Your task to perform on an android device: Do I have any events tomorrow? Image 0: 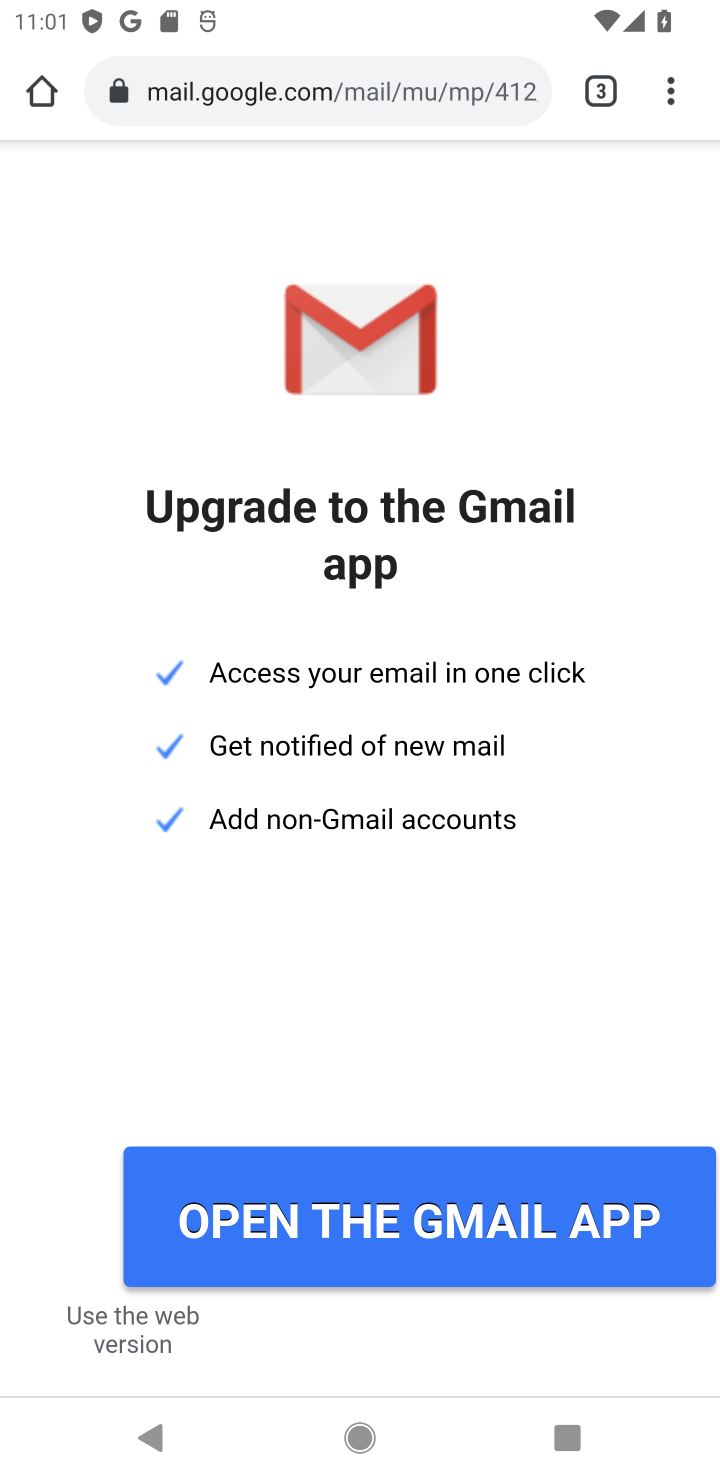
Step 0: click (284, 1415)
Your task to perform on an android device: Do I have any events tomorrow? Image 1: 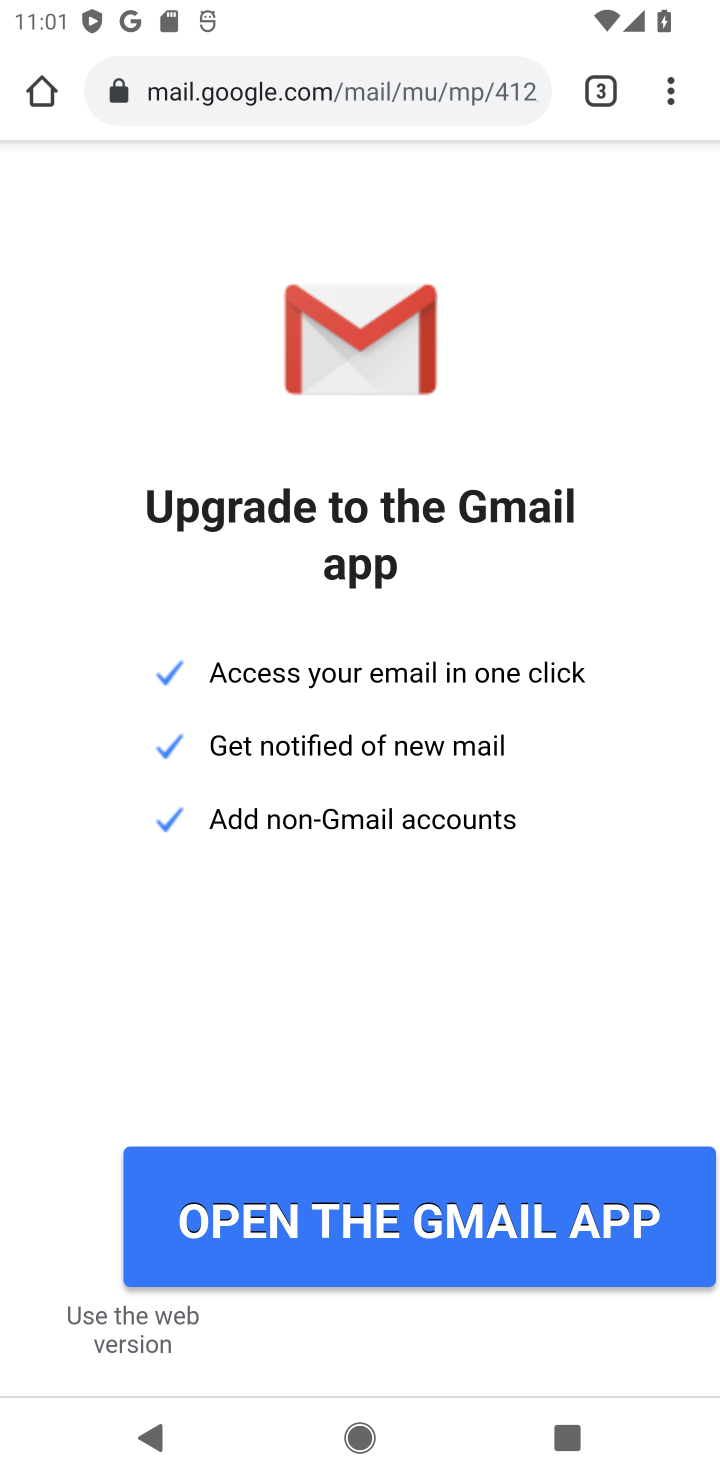
Step 1: click (358, 1439)
Your task to perform on an android device: Do I have any events tomorrow? Image 2: 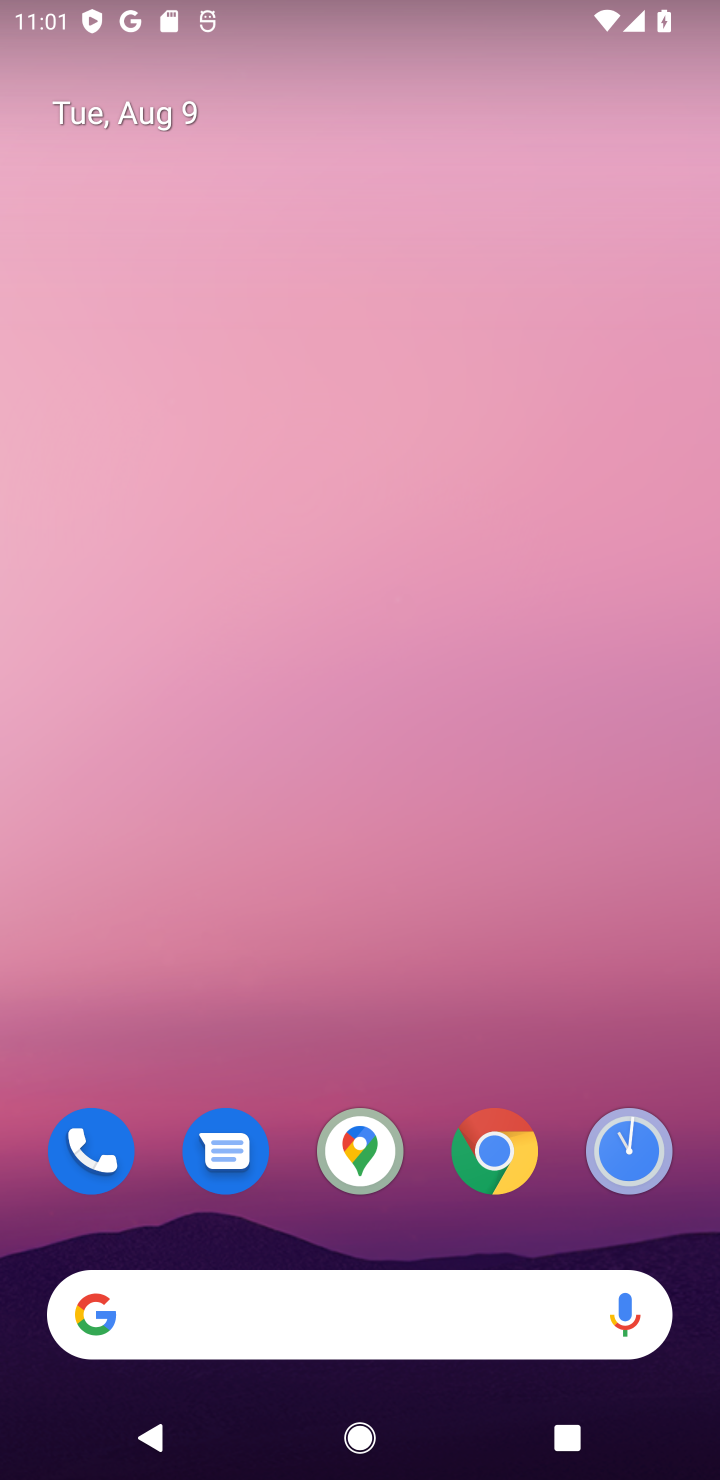
Step 2: click (134, 109)
Your task to perform on an android device: Do I have any events tomorrow? Image 3: 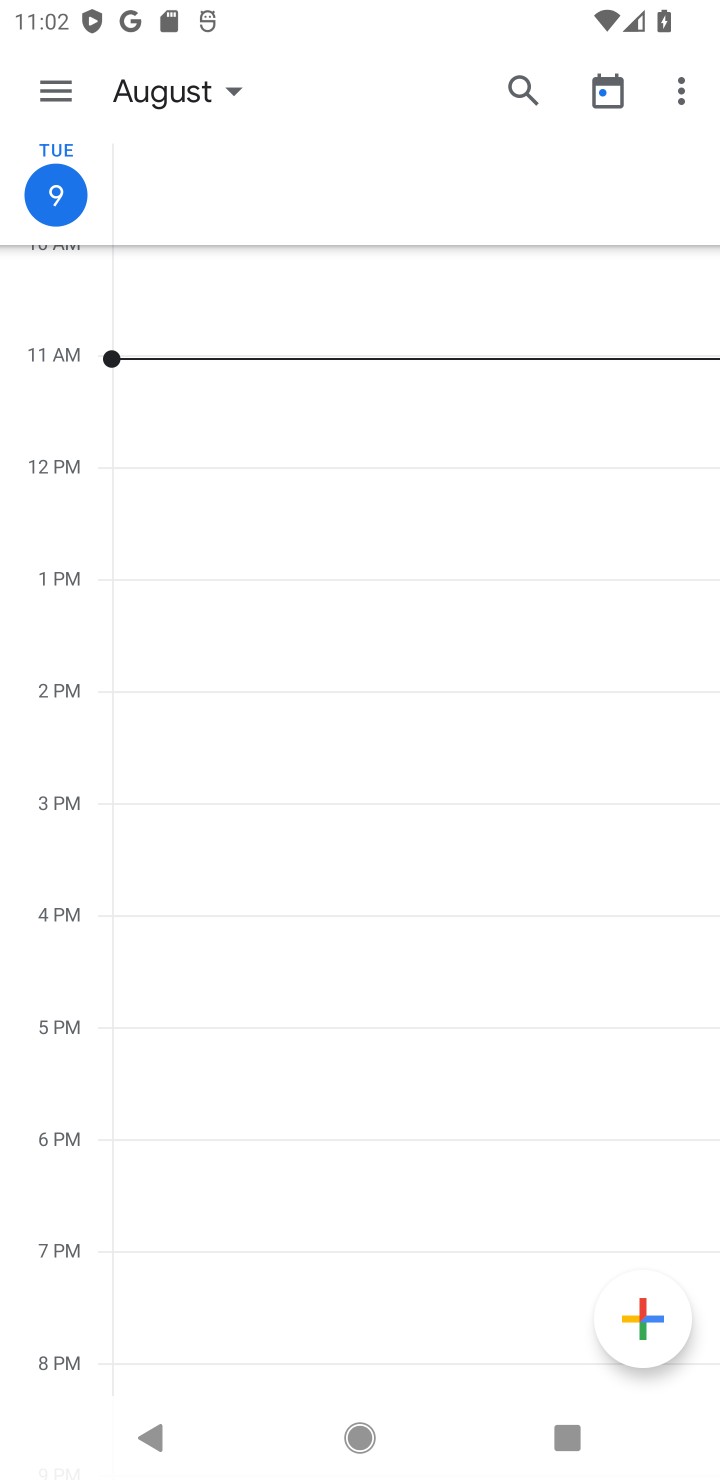
Step 3: click (51, 89)
Your task to perform on an android device: Do I have any events tomorrow? Image 4: 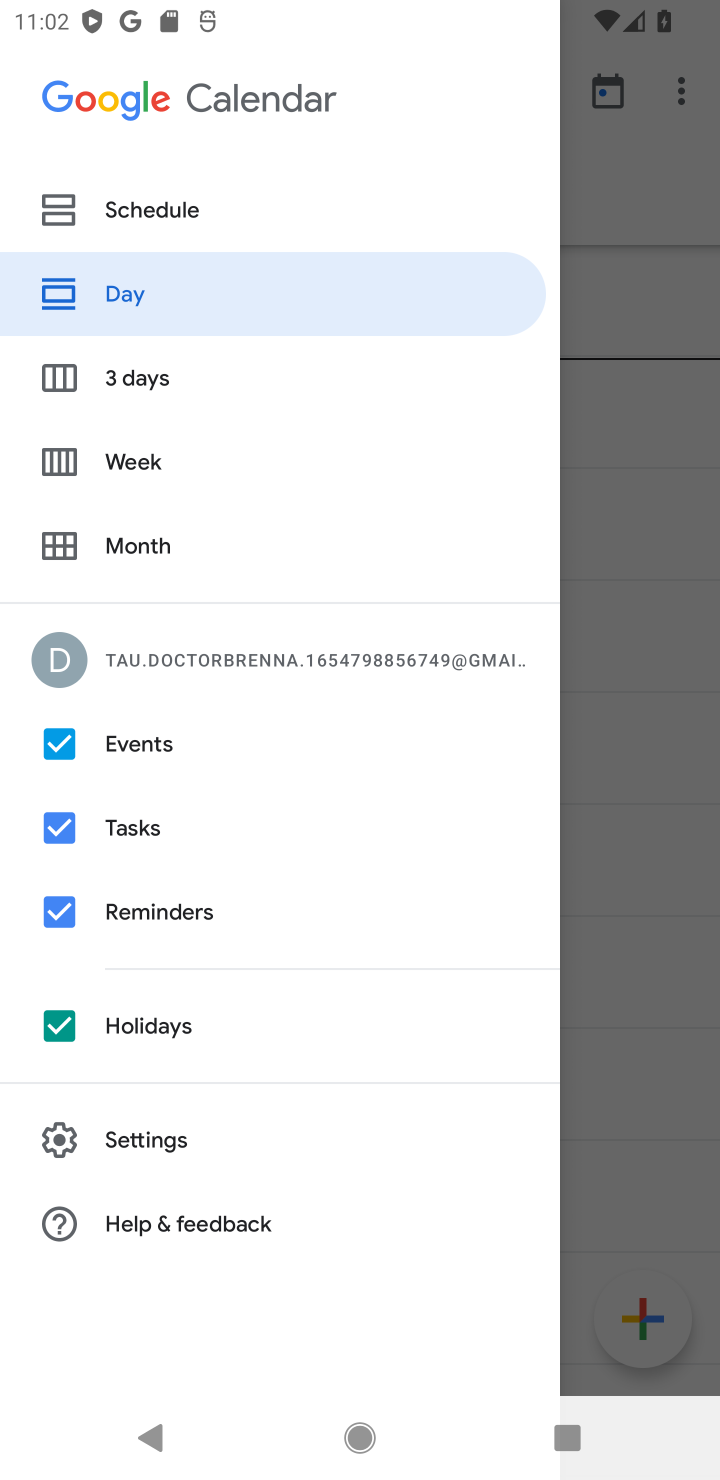
Step 4: click (174, 216)
Your task to perform on an android device: Do I have any events tomorrow? Image 5: 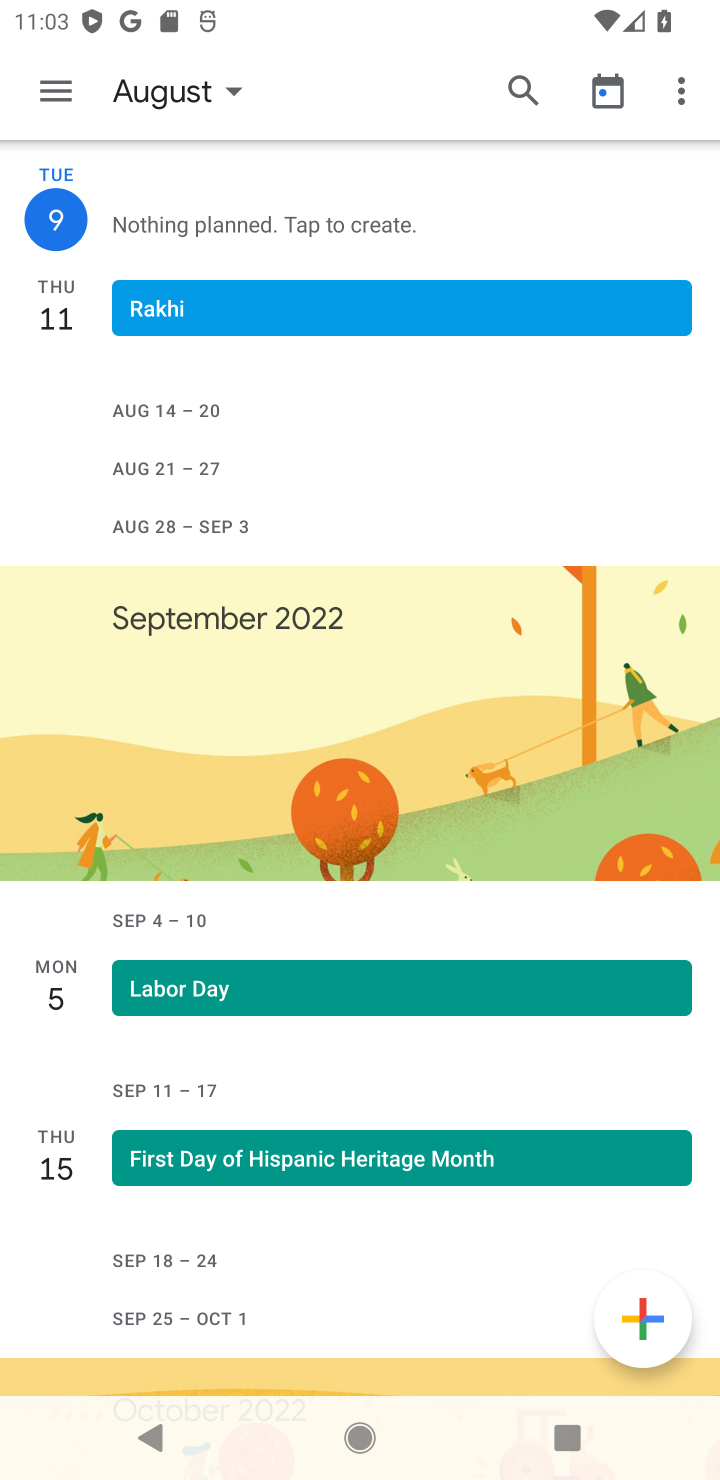
Step 5: task complete